Your task to perform on an android device: toggle priority inbox in the gmail app Image 0: 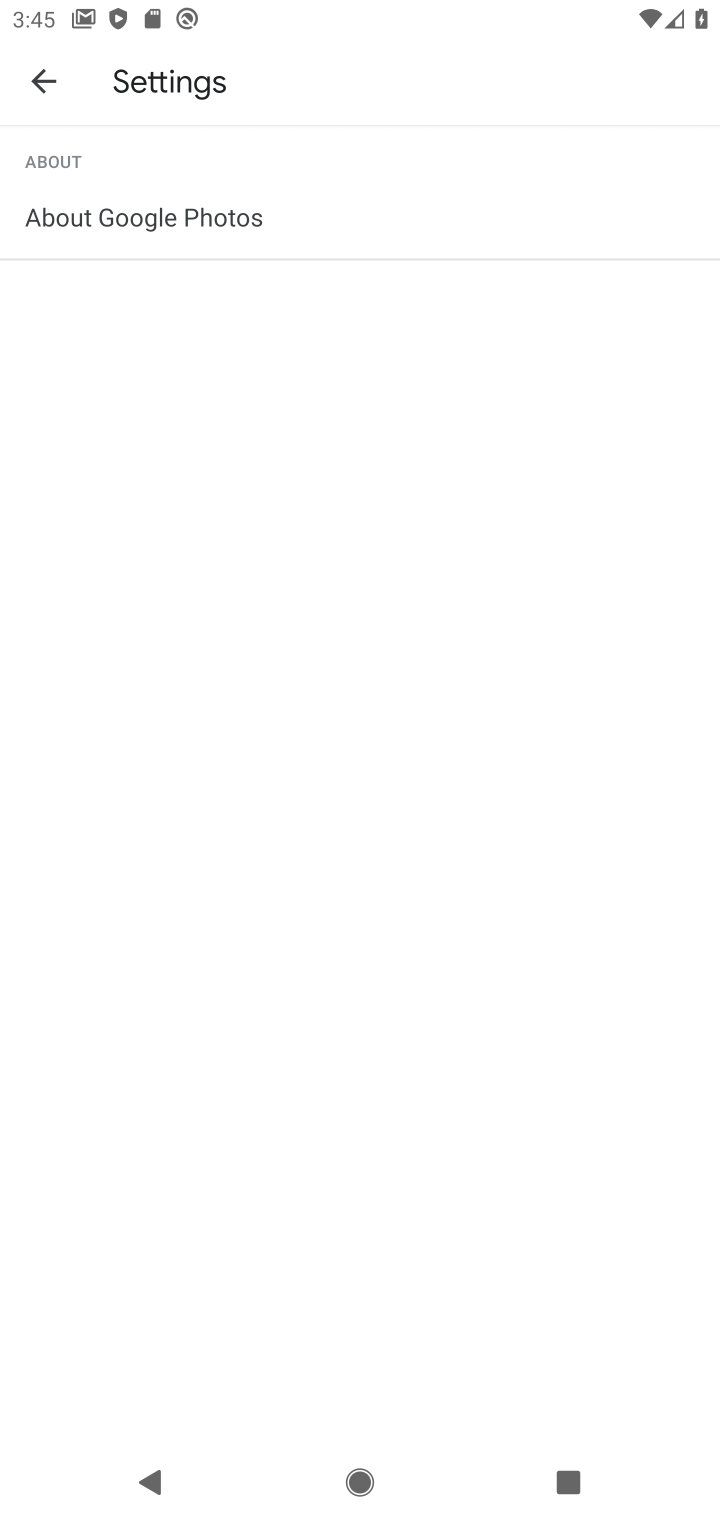
Step 0: press back button
Your task to perform on an android device: toggle priority inbox in the gmail app Image 1: 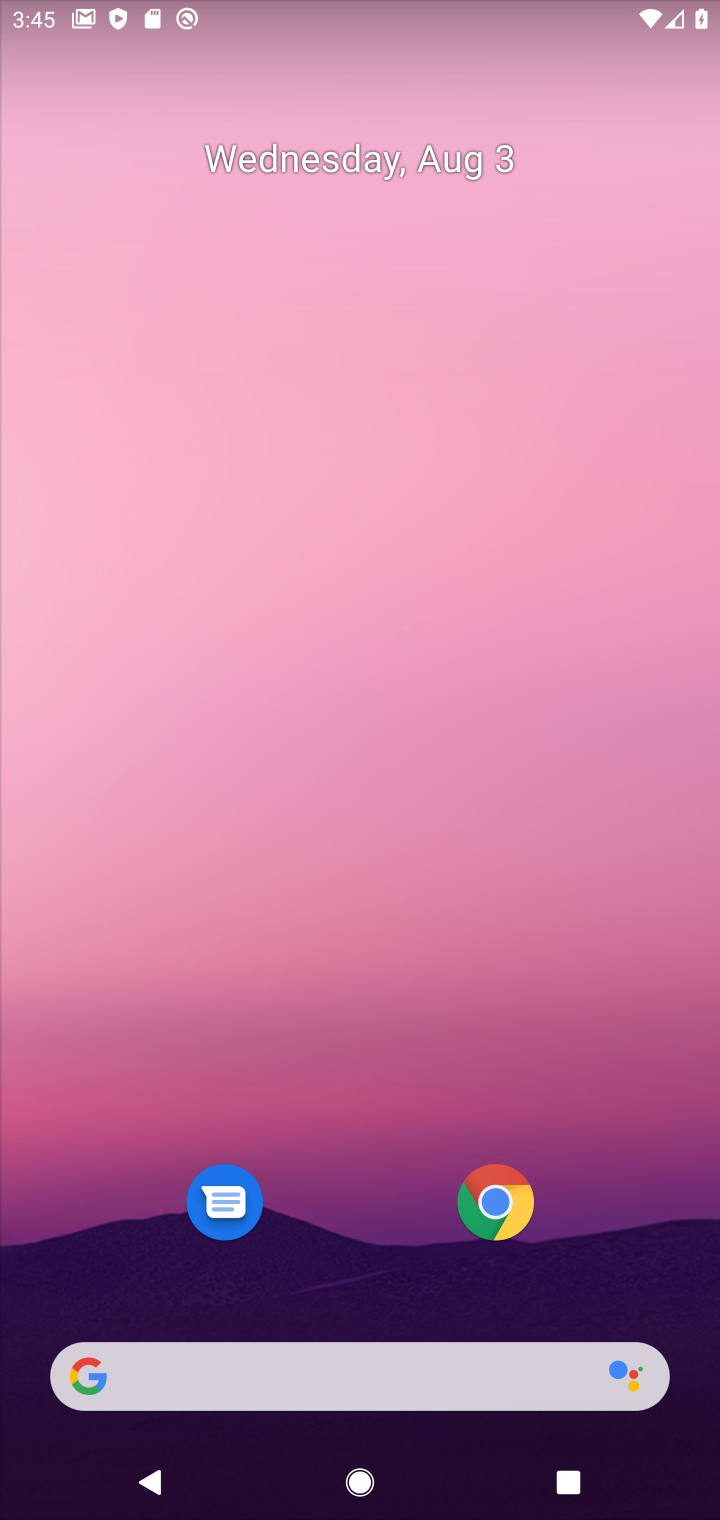
Step 1: drag from (326, 1220) to (471, 57)
Your task to perform on an android device: toggle priority inbox in the gmail app Image 2: 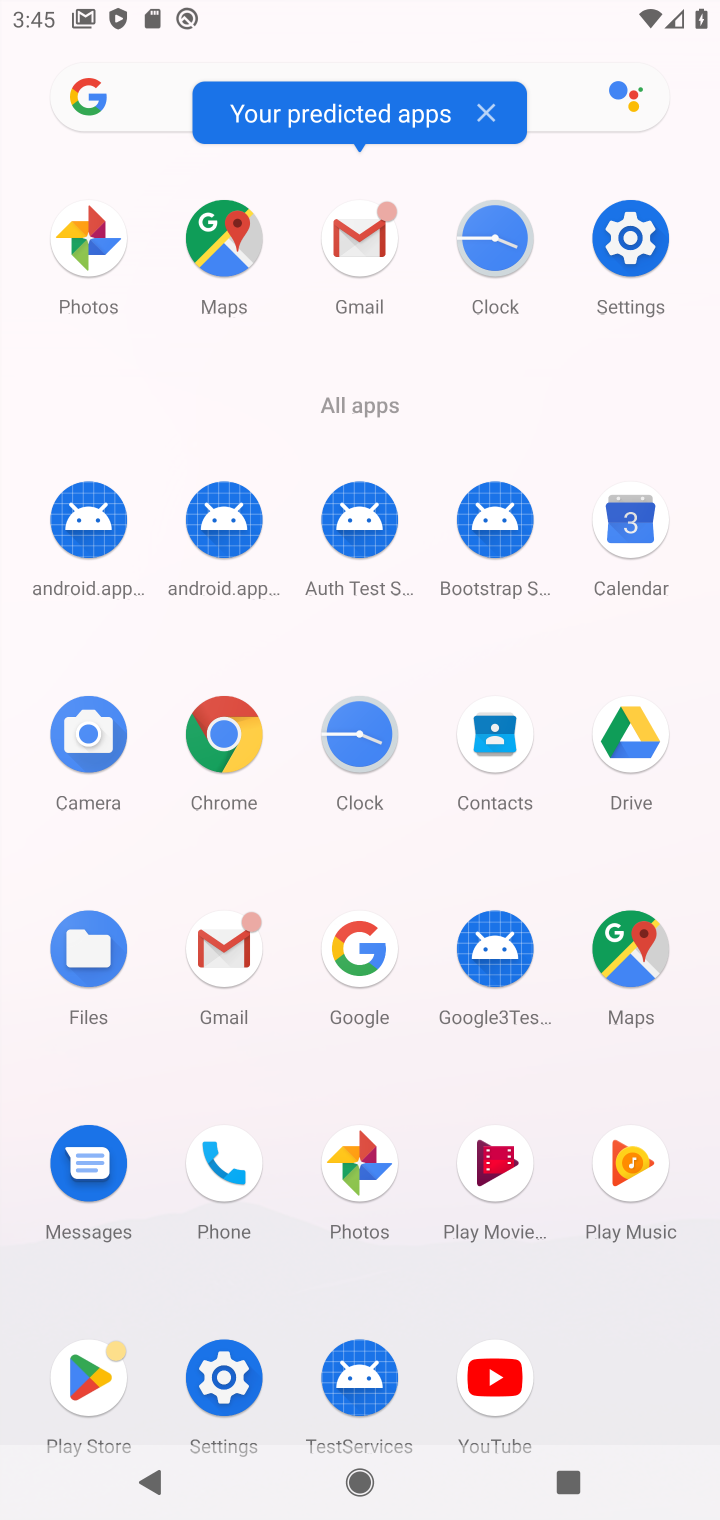
Step 2: click (352, 260)
Your task to perform on an android device: toggle priority inbox in the gmail app Image 3: 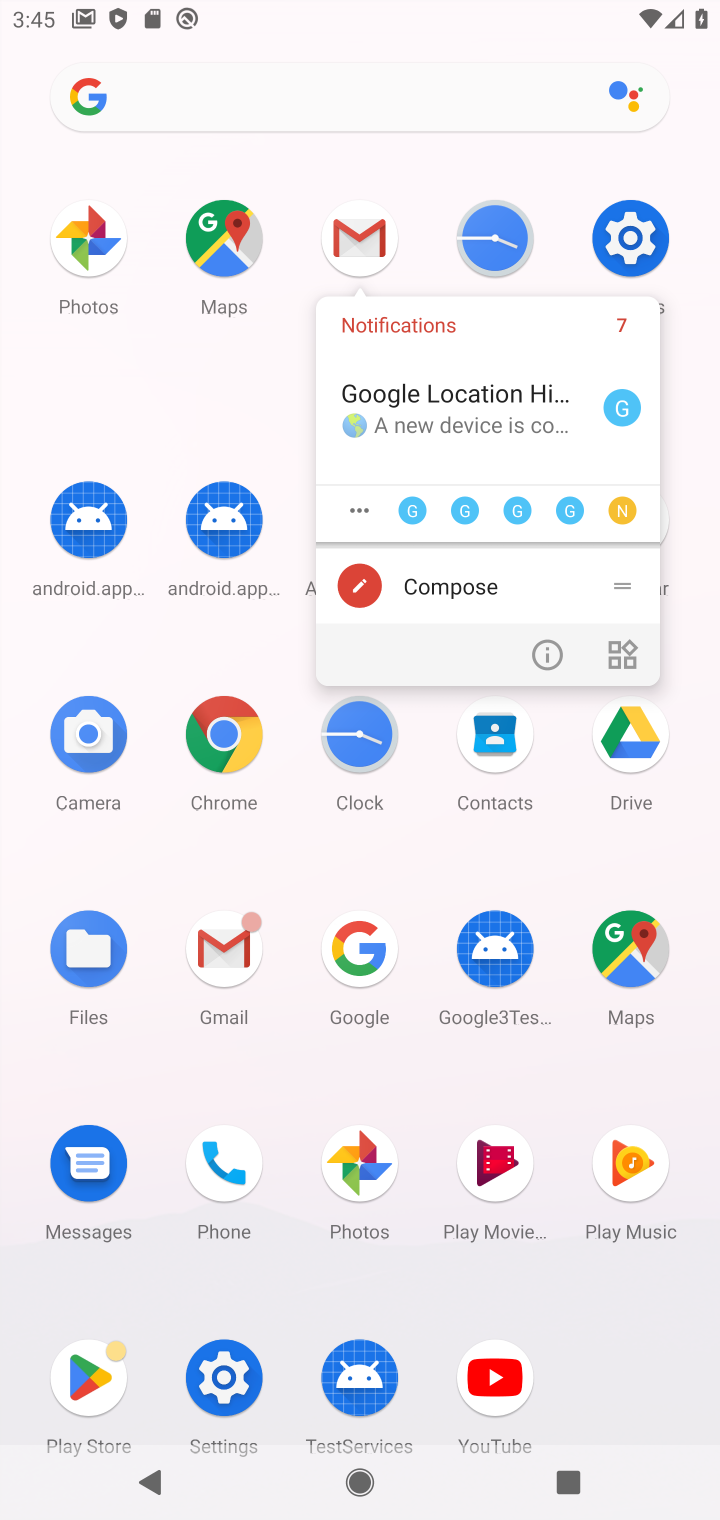
Step 3: click (369, 238)
Your task to perform on an android device: toggle priority inbox in the gmail app Image 4: 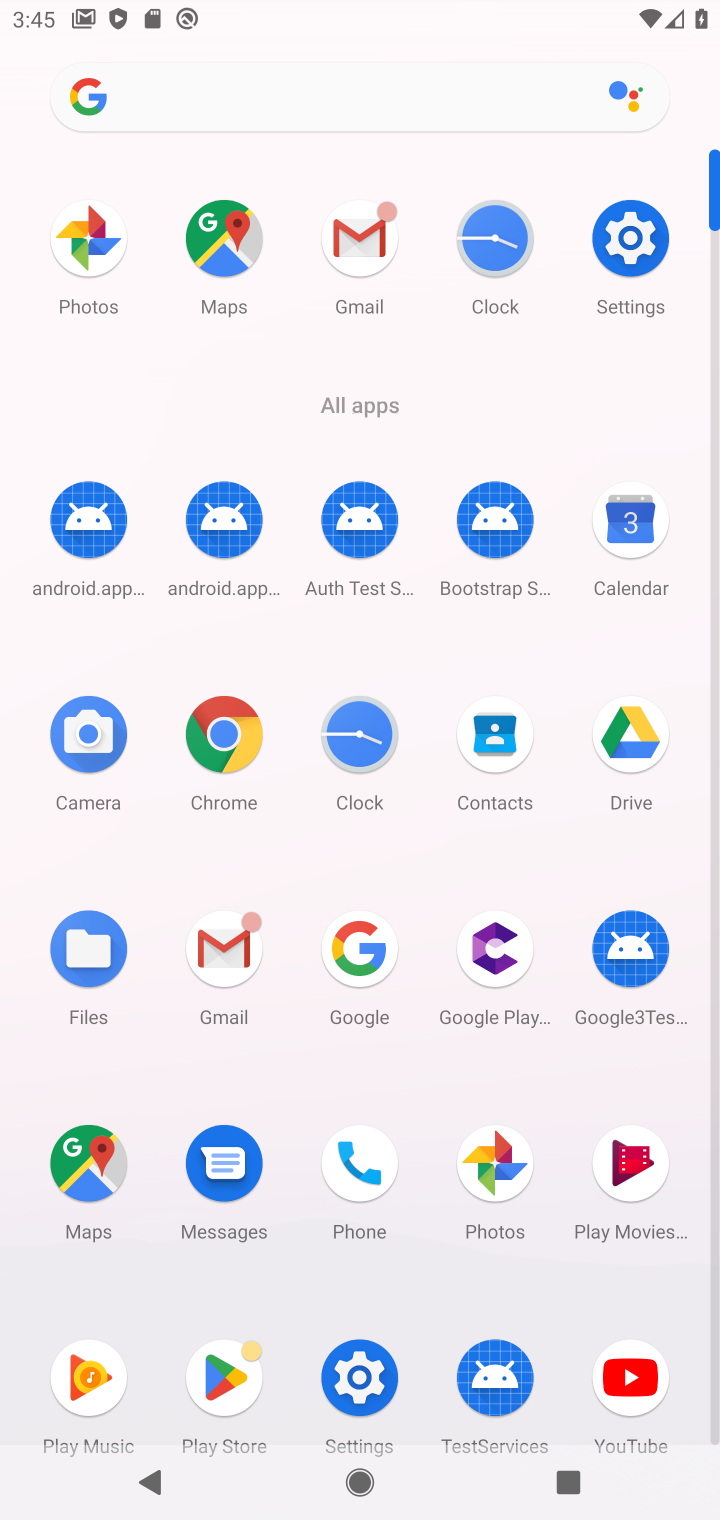
Step 4: click (360, 276)
Your task to perform on an android device: toggle priority inbox in the gmail app Image 5: 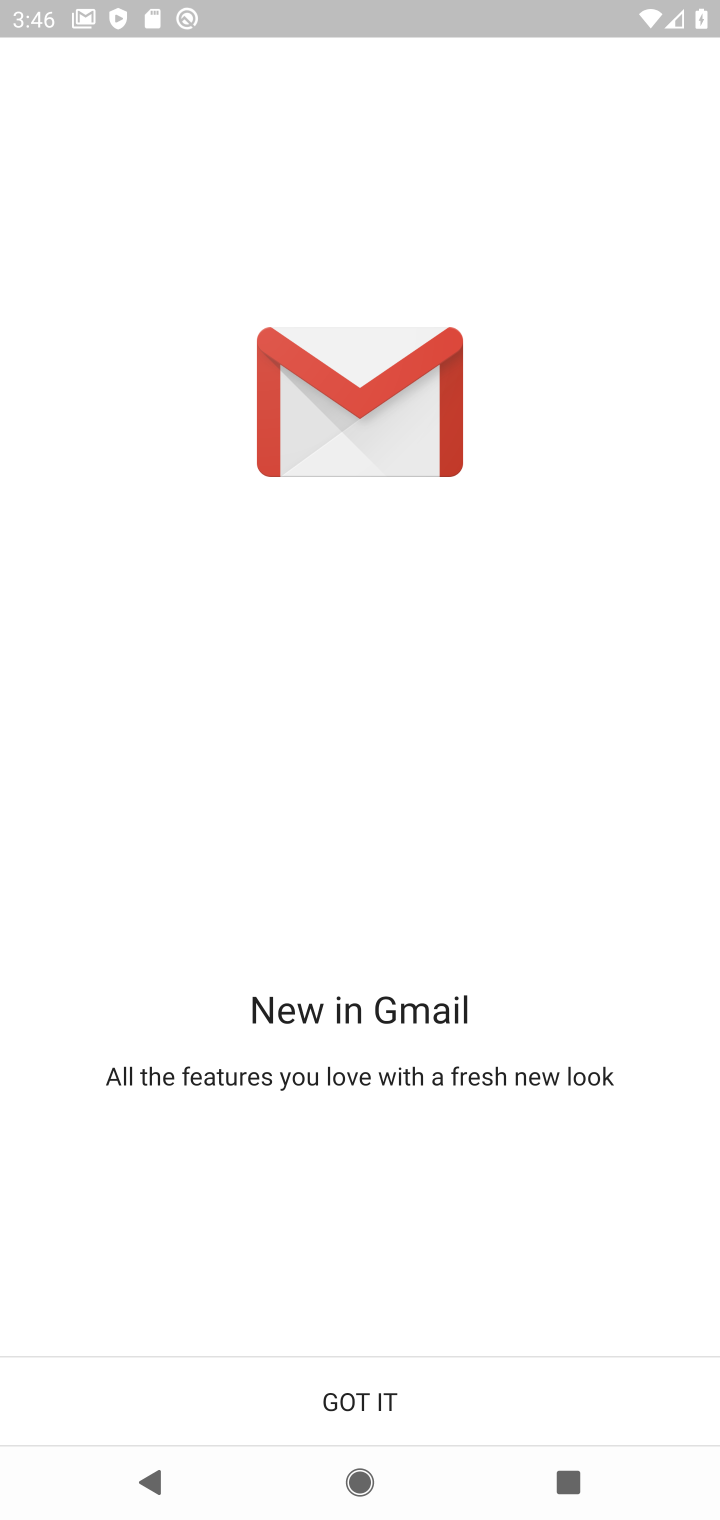
Step 5: click (328, 1413)
Your task to perform on an android device: toggle priority inbox in the gmail app Image 6: 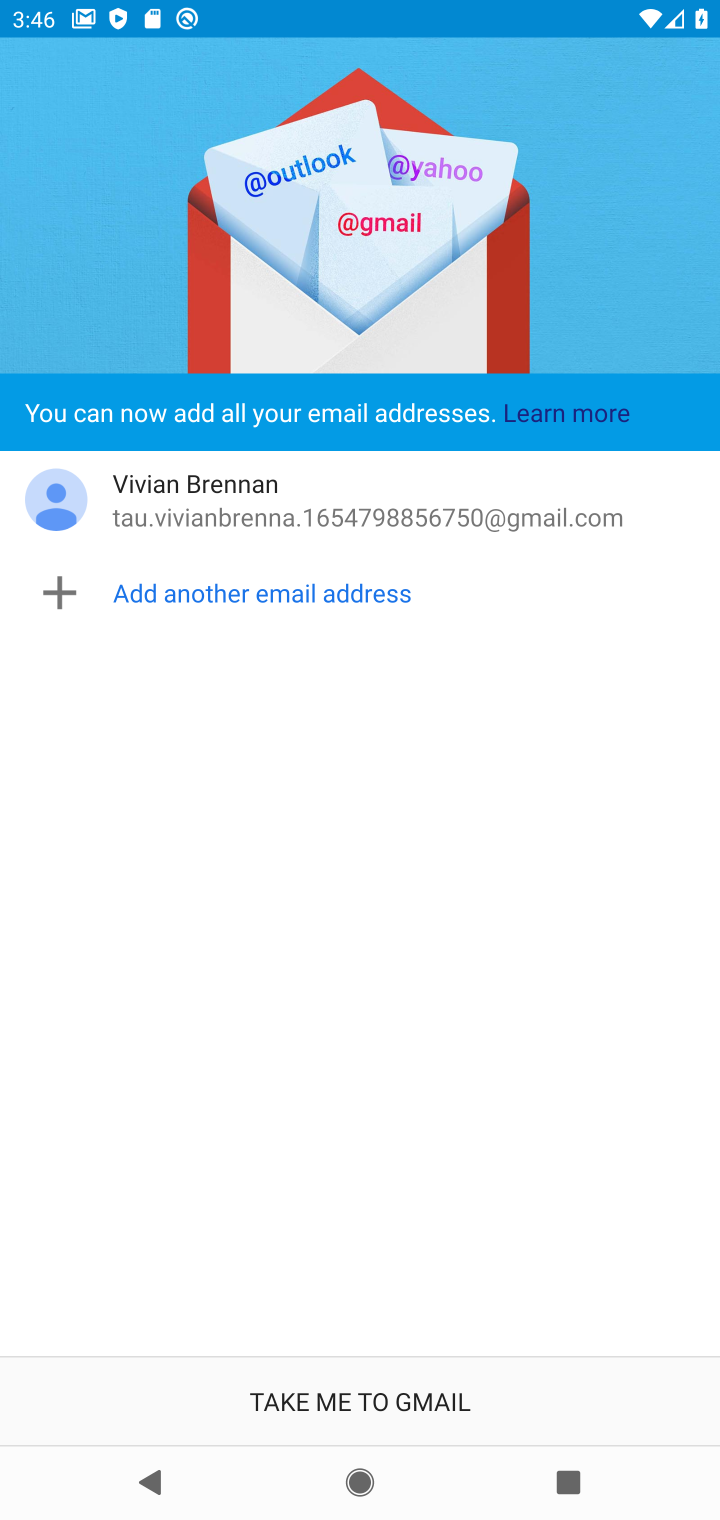
Step 6: click (322, 1397)
Your task to perform on an android device: toggle priority inbox in the gmail app Image 7: 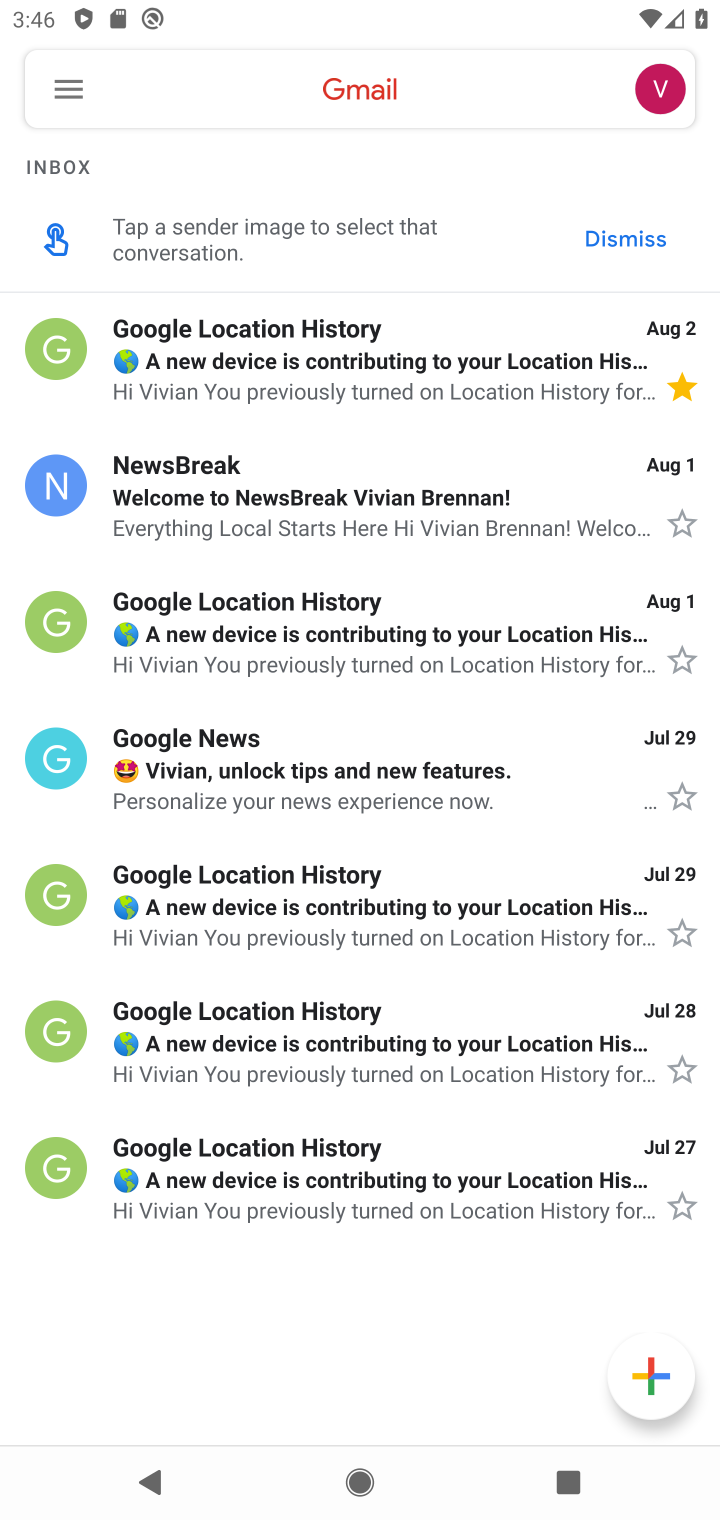
Step 7: click (69, 89)
Your task to perform on an android device: toggle priority inbox in the gmail app Image 8: 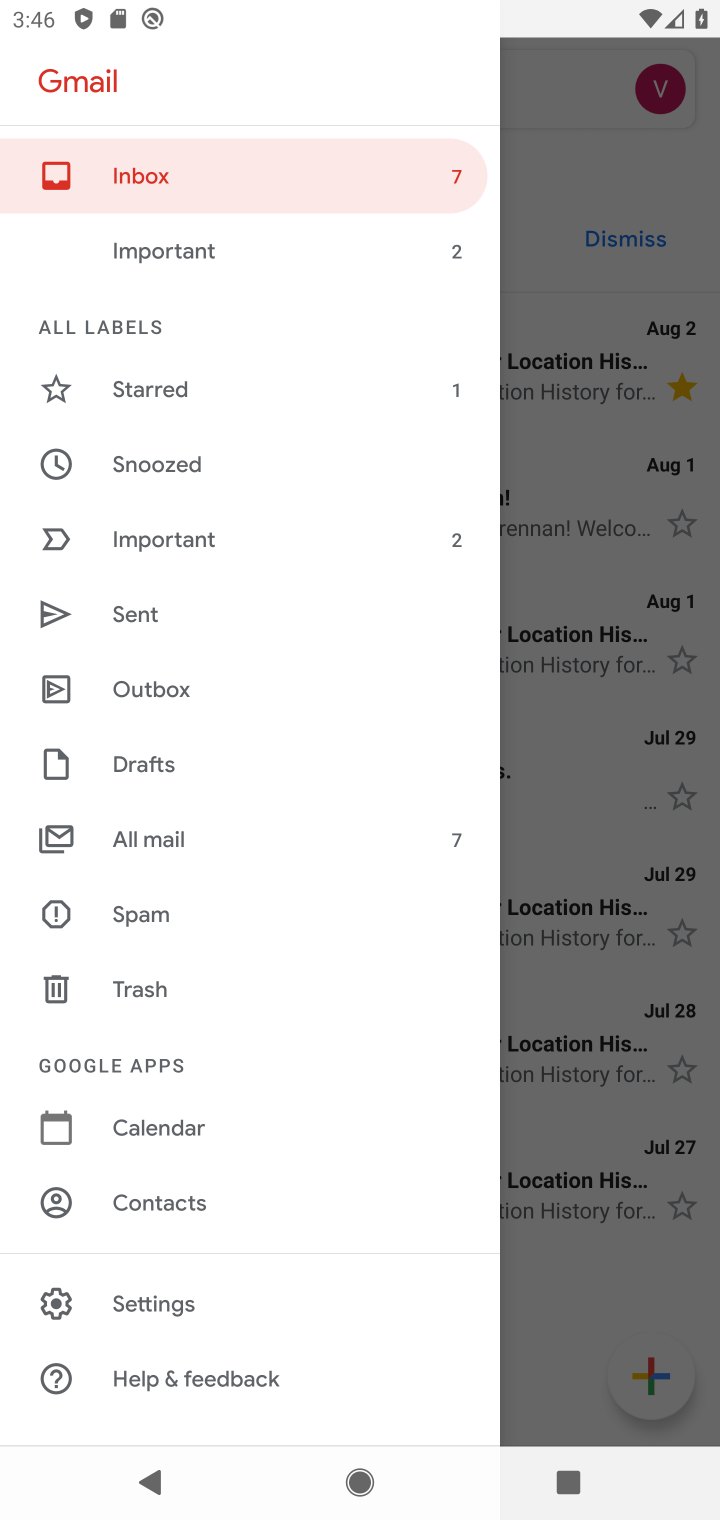
Step 8: click (145, 1299)
Your task to perform on an android device: toggle priority inbox in the gmail app Image 9: 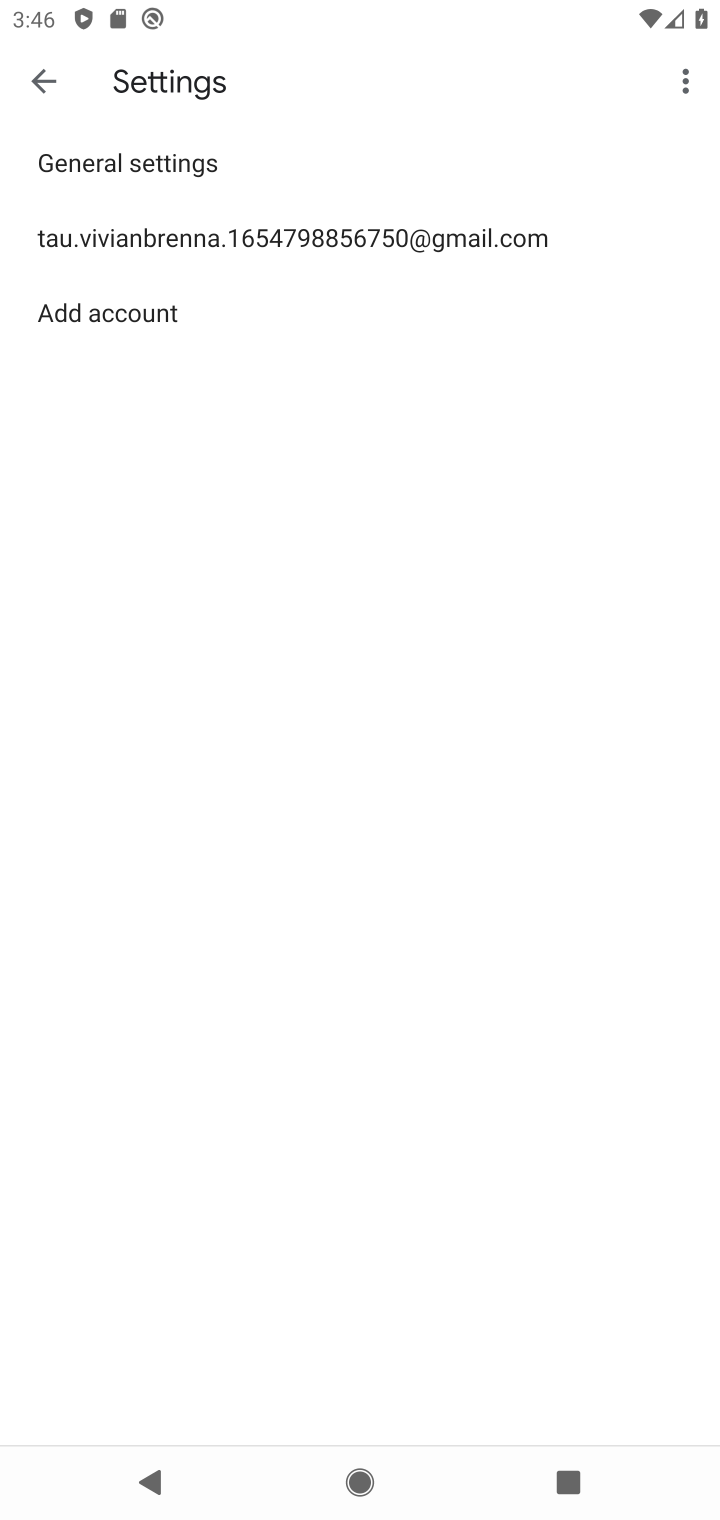
Step 9: click (285, 215)
Your task to perform on an android device: toggle priority inbox in the gmail app Image 10: 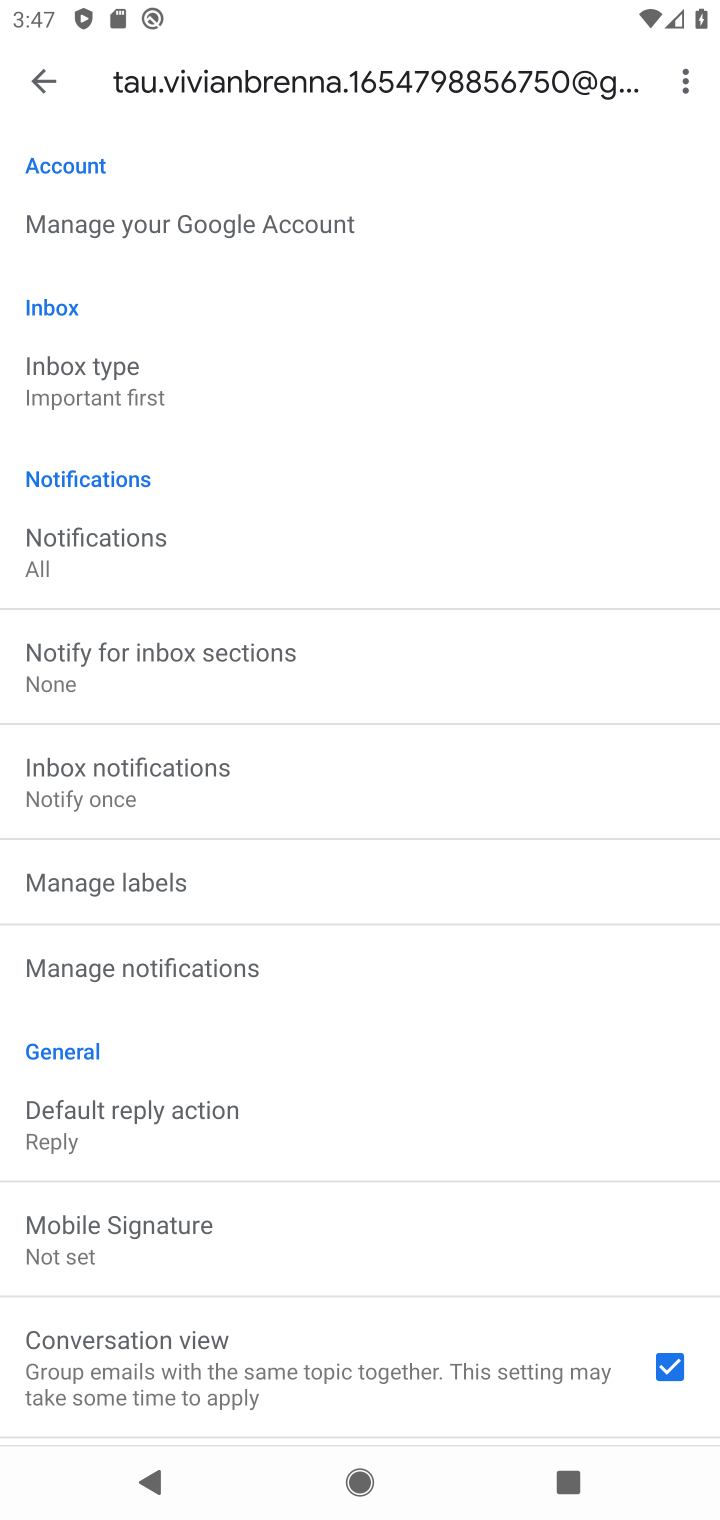
Step 10: click (94, 352)
Your task to perform on an android device: toggle priority inbox in the gmail app Image 11: 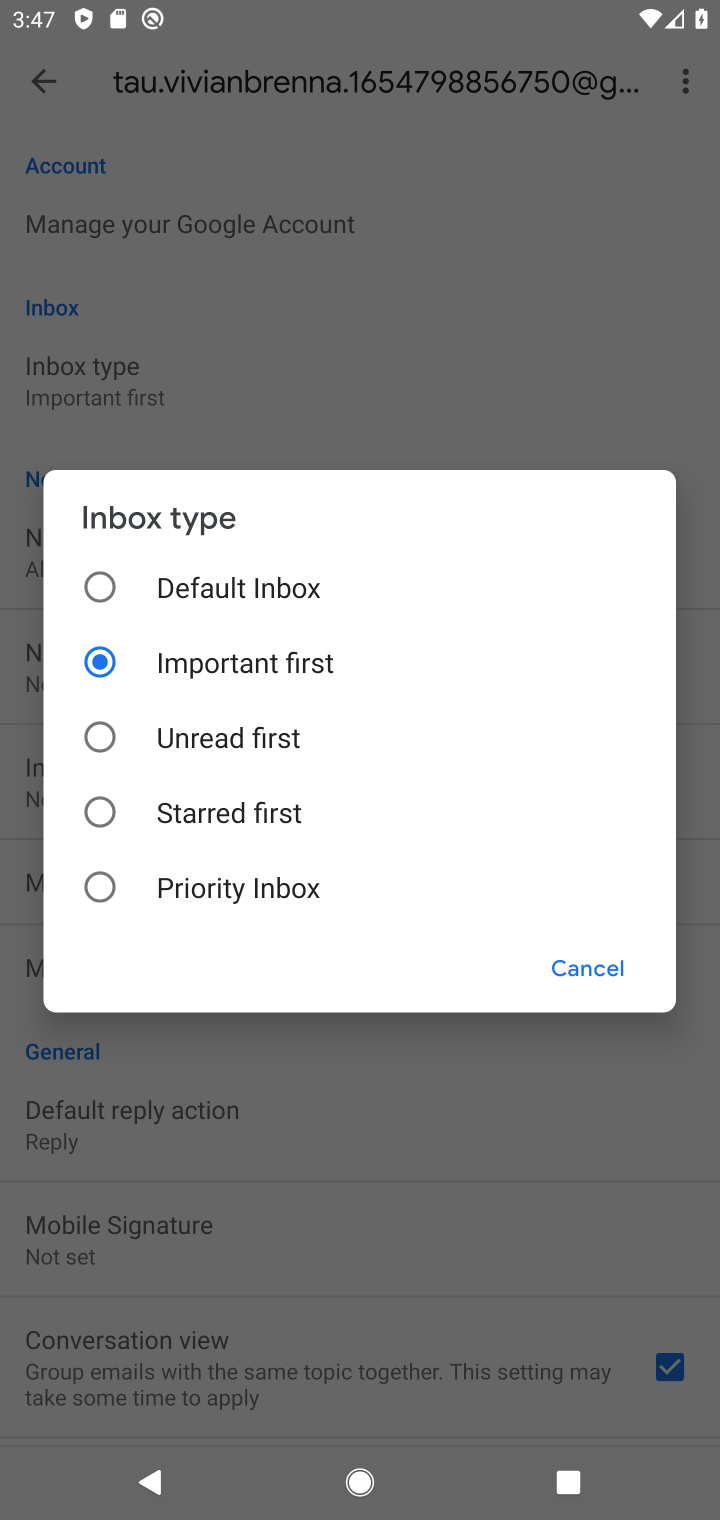
Step 11: click (91, 890)
Your task to perform on an android device: toggle priority inbox in the gmail app Image 12: 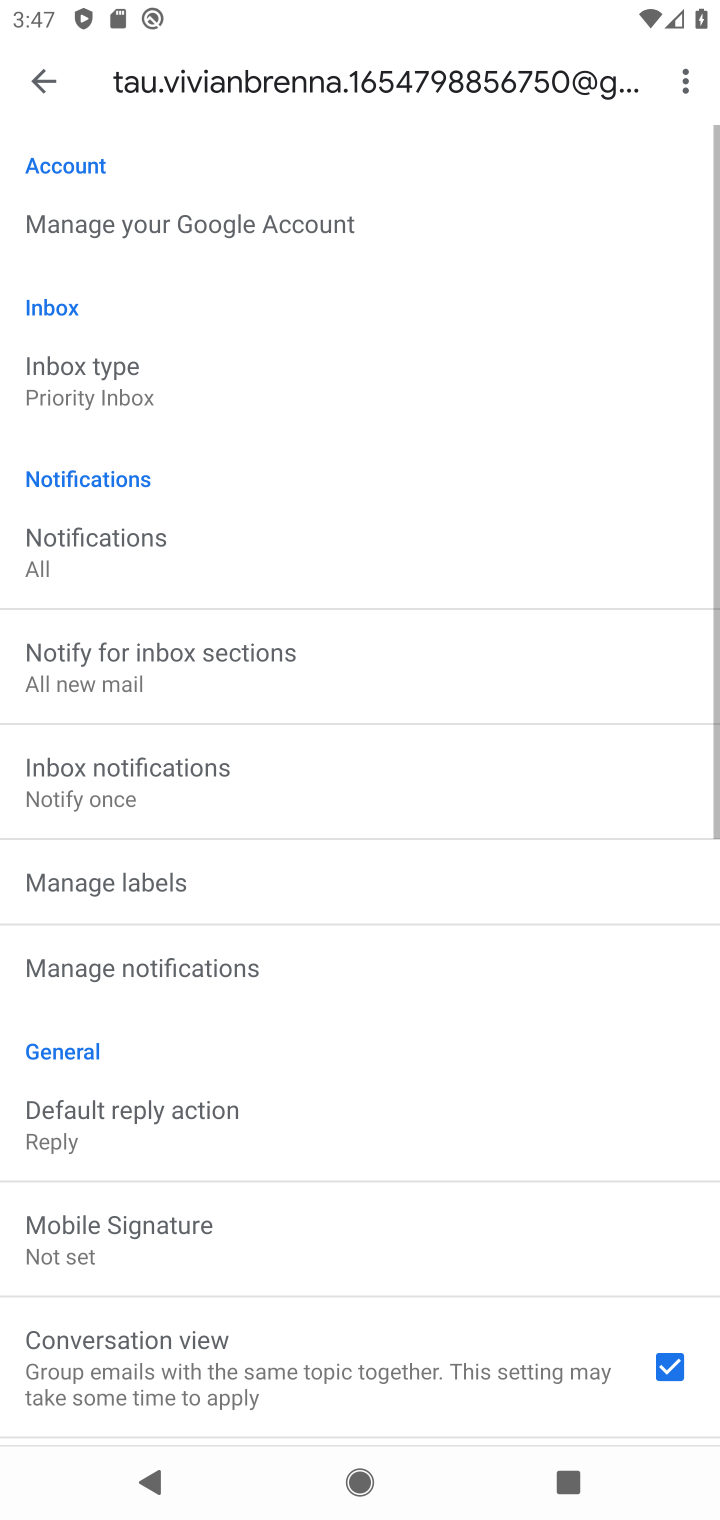
Step 12: task complete